Your task to perform on an android device: Search for "bose quietcomfort 35" on ebay.com, select the first entry, and add it to the cart. Image 0: 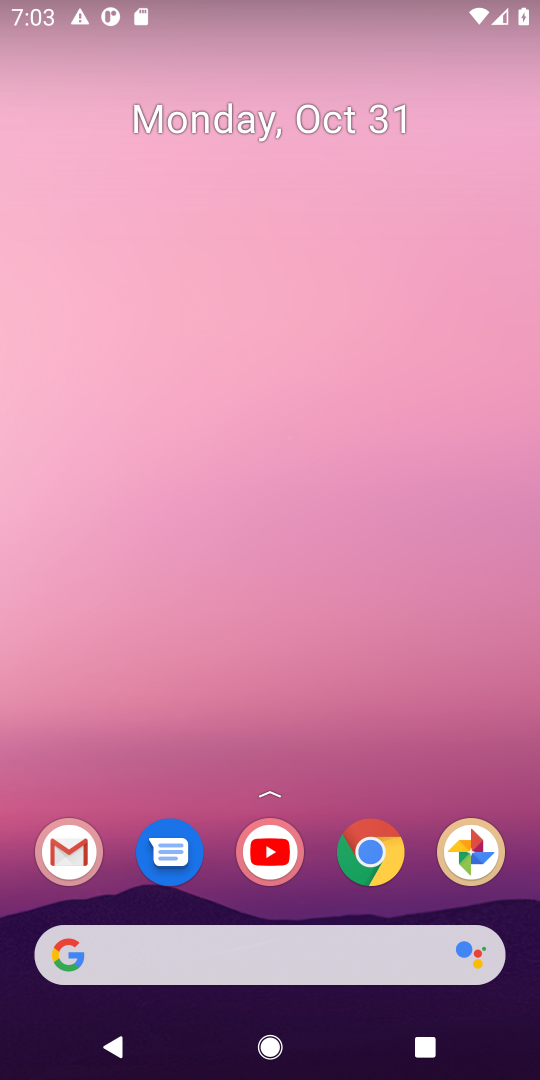
Step 0: drag from (306, 813) to (291, 112)
Your task to perform on an android device: Search for "bose quietcomfort 35" on ebay.com, select the first entry, and add it to the cart. Image 1: 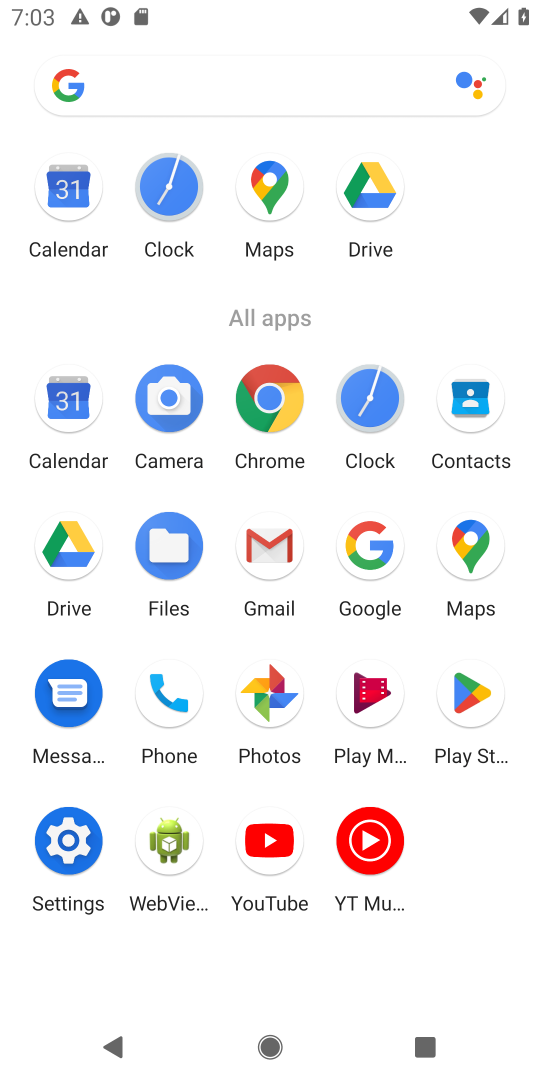
Step 1: click (273, 403)
Your task to perform on an android device: Search for "bose quietcomfort 35" on ebay.com, select the first entry, and add it to the cart. Image 2: 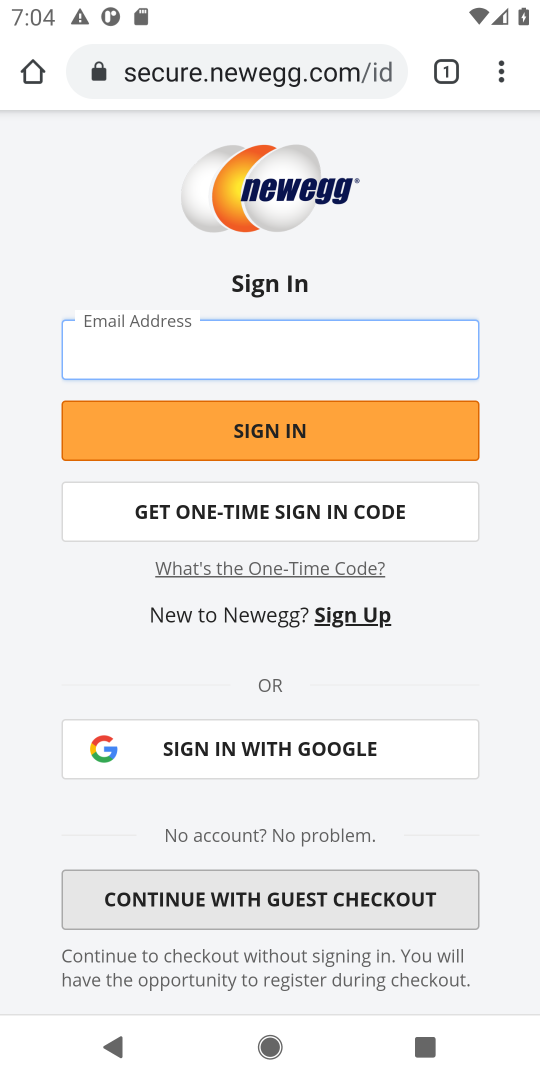
Step 2: click (234, 75)
Your task to perform on an android device: Search for "bose quietcomfort 35" on ebay.com, select the first entry, and add it to the cart. Image 3: 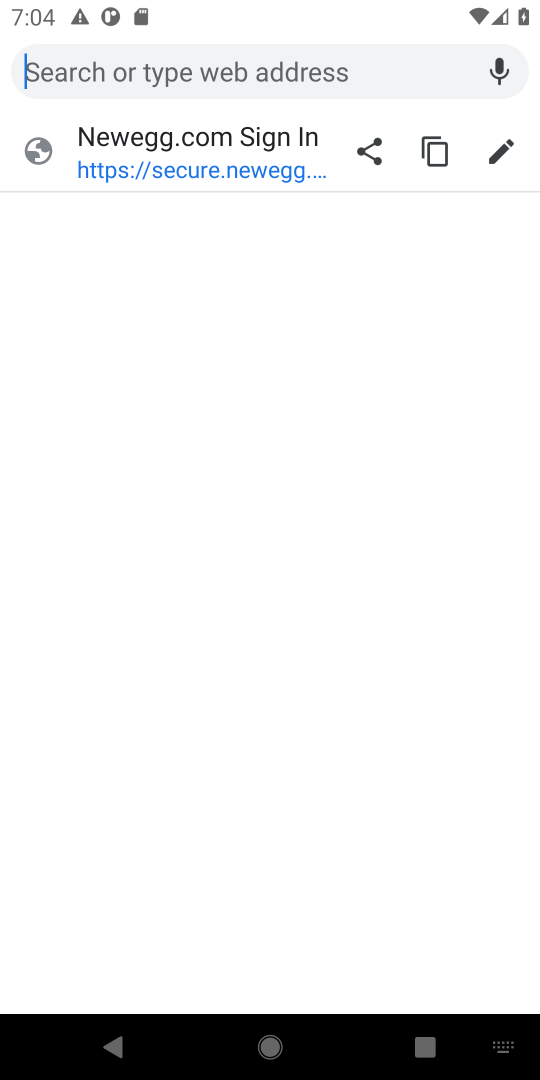
Step 3: type "ebay.com"
Your task to perform on an android device: Search for "bose quietcomfort 35" on ebay.com, select the first entry, and add it to the cart. Image 4: 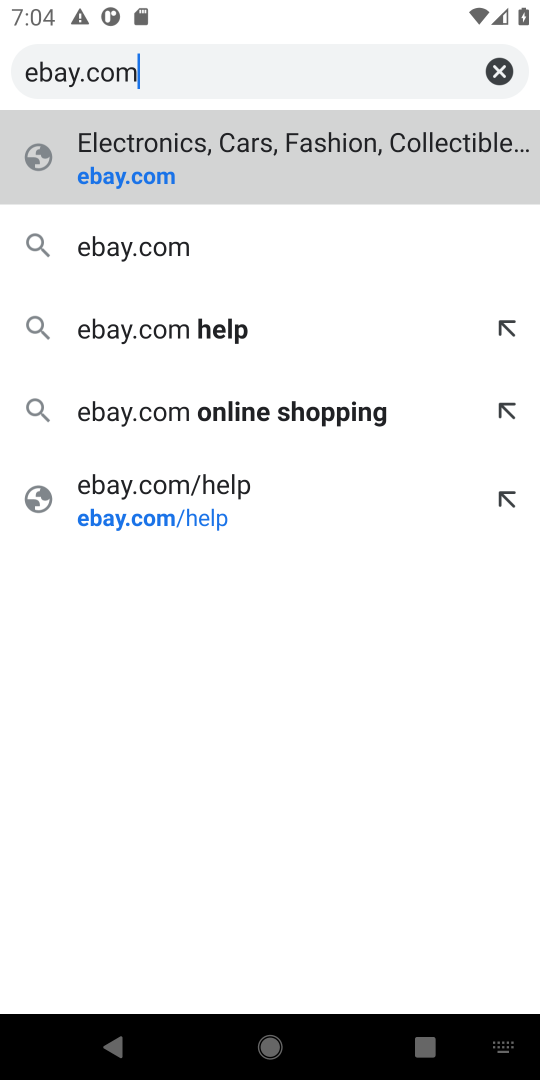
Step 4: click (206, 170)
Your task to perform on an android device: Search for "bose quietcomfort 35" on ebay.com, select the first entry, and add it to the cart. Image 5: 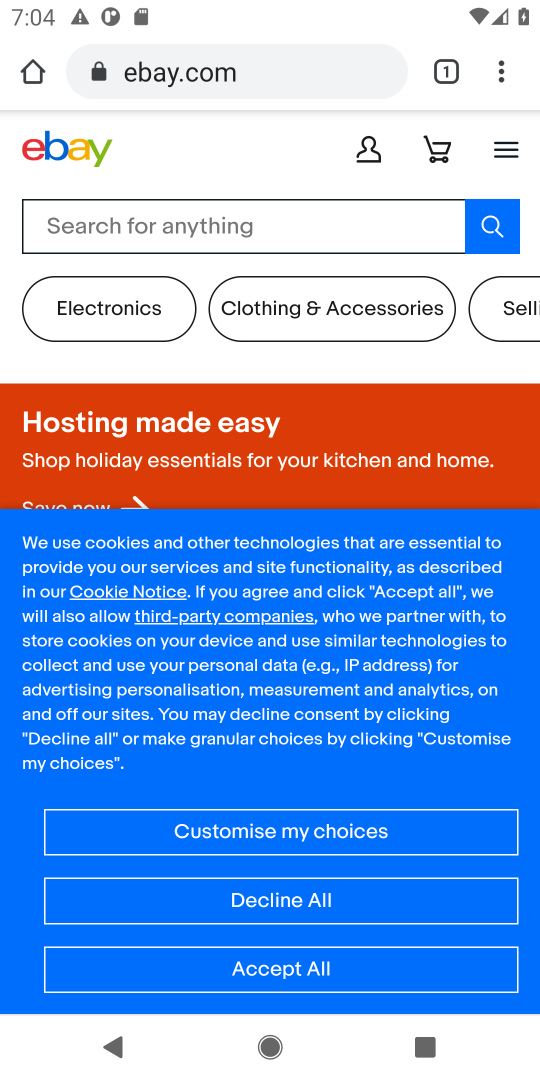
Step 5: click (281, 972)
Your task to perform on an android device: Search for "bose quietcomfort 35" on ebay.com, select the first entry, and add it to the cart. Image 6: 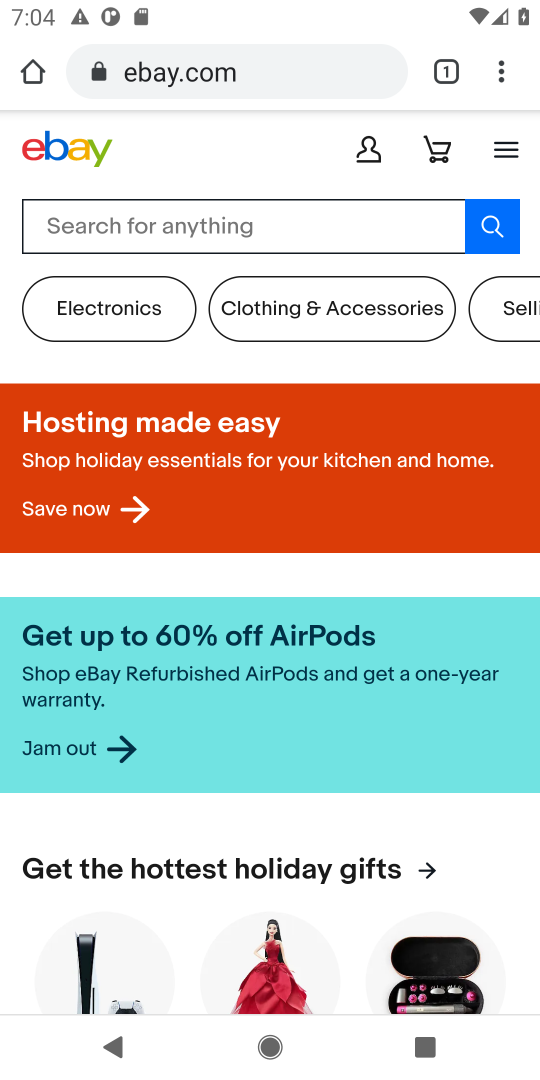
Step 6: click (114, 221)
Your task to perform on an android device: Search for "bose quietcomfort 35" on ebay.com, select the first entry, and add it to the cart. Image 7: 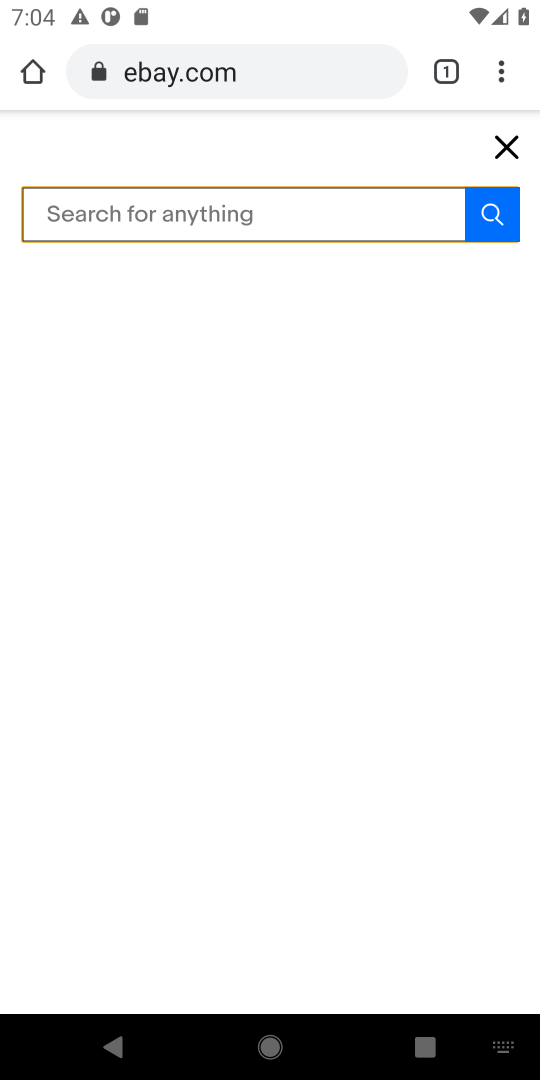
Step 7: click (90, 210)
Your task to perform on an android device: Search for "bose quietcomfort 35" on ebay.com, select the first entry, and add it to the cart. Image 8: 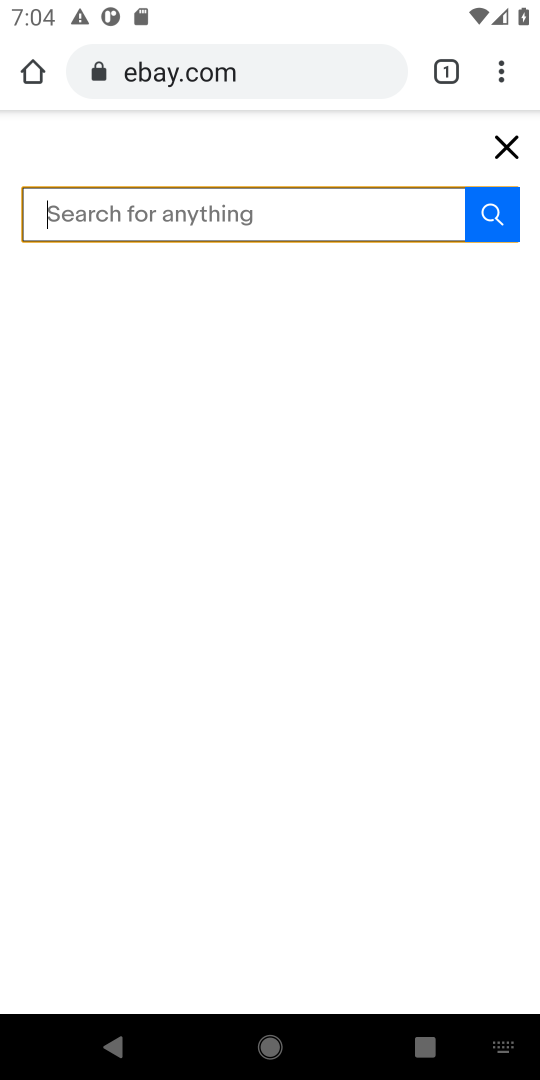
Step 8: type "bose quietcomfort 35"
Your task to perform on an android device: Search for "bose quietcomfort 35" on ebay.com, select the first entry, and add it to the cart. Image 9: 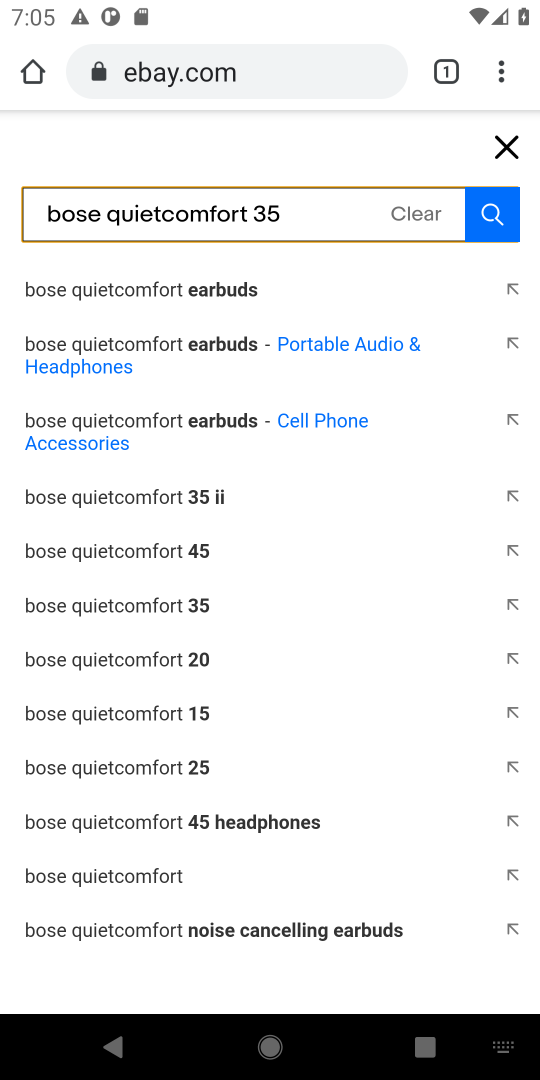
Step 9: click (180, 604)
Your task to perform on an android device: Search for "bose quietcomfort 35" on ebay.com, select the first entry, and add it to the cart. Image 10: 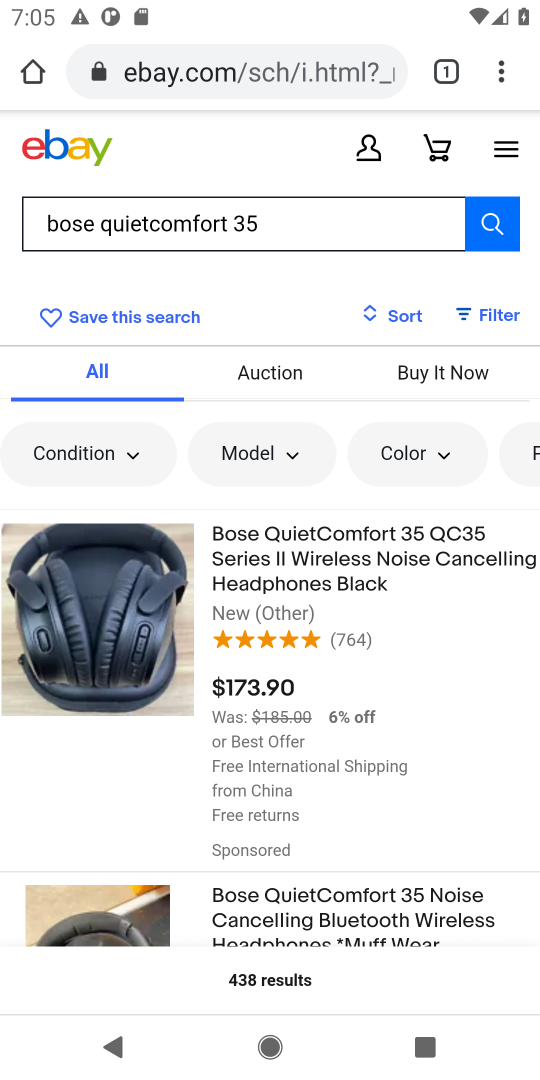
Step 10: click (268, 560)
Your task to perform on an android device: Search for "bose quietcomfort 35" on ebay.com, select the first entry, and add it to the cart. Image 11: 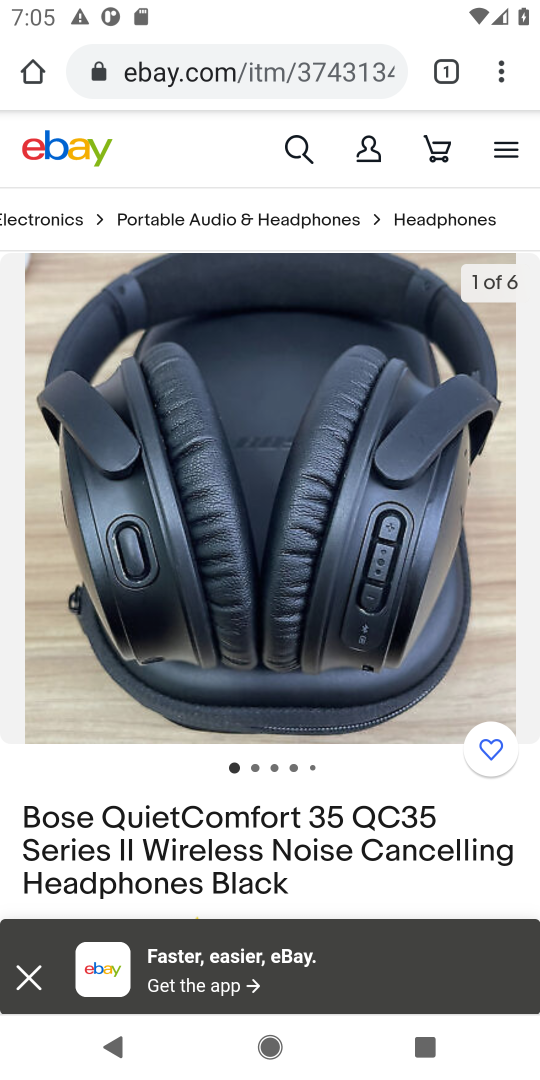
Step 11: click (25, 978)
Your task to perform on an android device: Search for "bose quietcomfort 35" on ebay.com, select the first entry, and add it to the cart. Image 12: 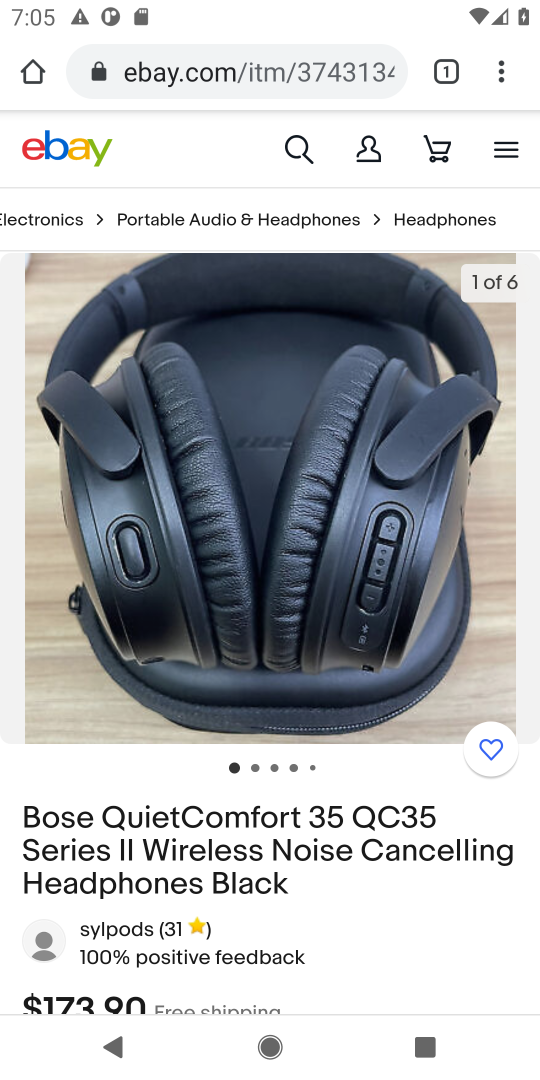
Step 12: drag from (316, 944) to (364, 400)
Your task to perform on an android device: Search for "bose quietcomfort 35" on ebay.com, select the first entry, and add it to the cart. Image 13: 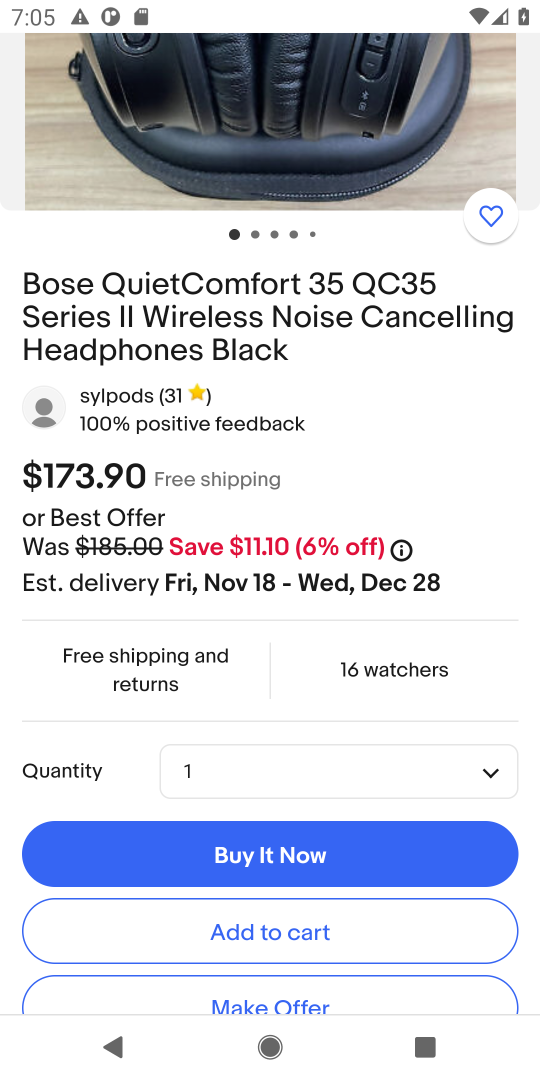
Step 13: click (269, 927)
Your task to perform on an android device: Search for "bose quietcomfort 35" on ebay.com, select the first entry, and add it to the cart. Image 14: 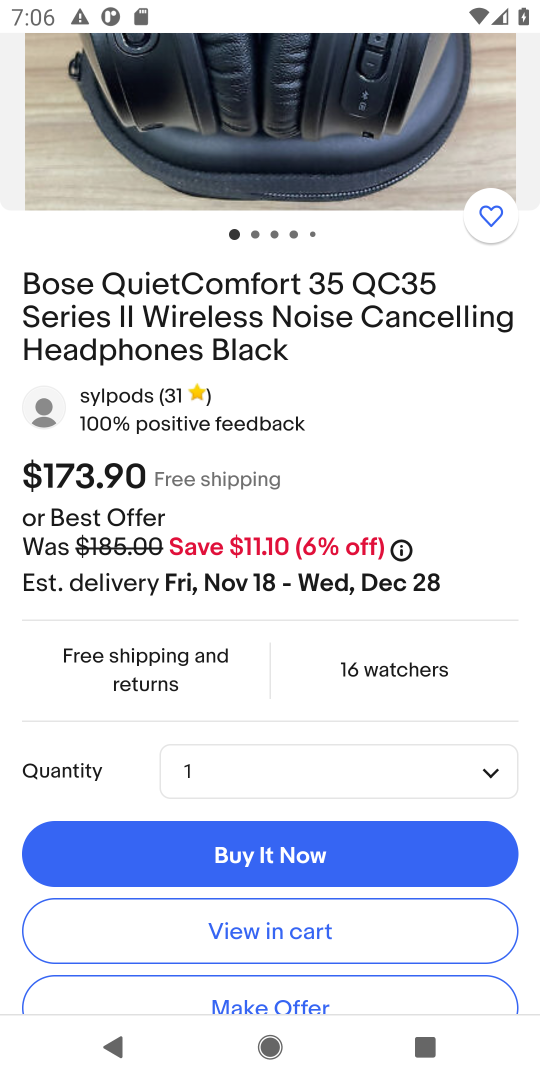
Step 14: click (269, 931)
Your task to perform on an android device: Search for "bose quietcomfort 35" on ebay.com, select the first entry, and add it to the cart. Image 15: 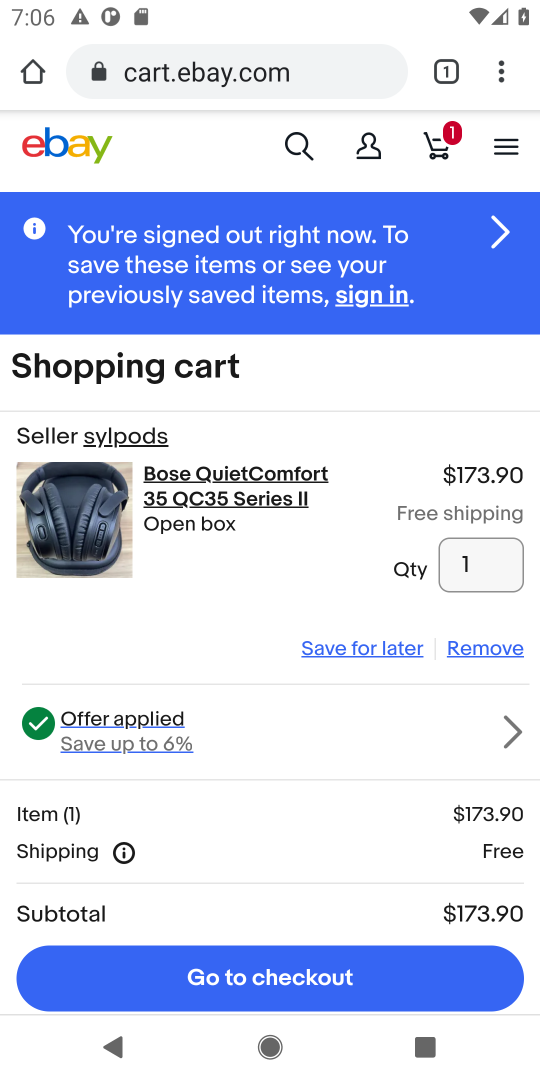
Step 15: task complete